Your task to perform on an android device: What's the weather? Image 0: 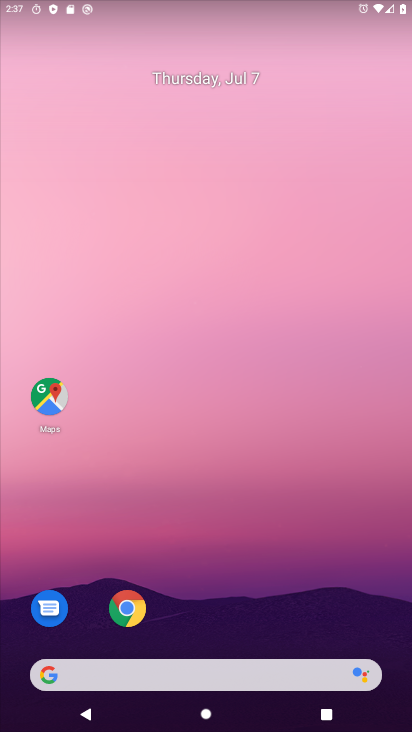
Step 0: drag from (272, 692) to (228, 171)
Your task to perform on an android device: What's the weather? Image 1: 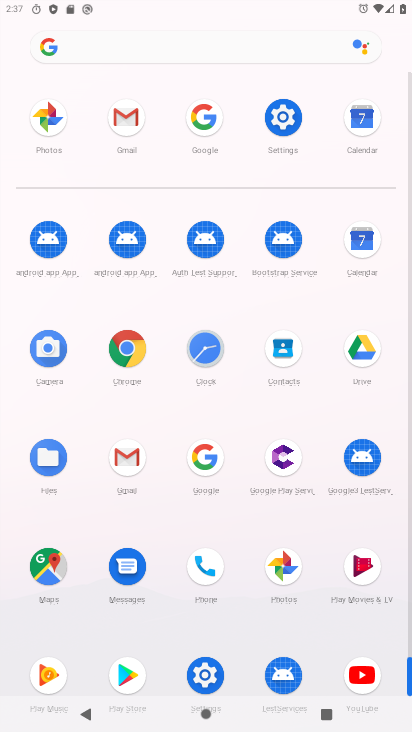
Step 1: click (204, 118)
Your task to perform on an android device: What's the weather? Image 2: 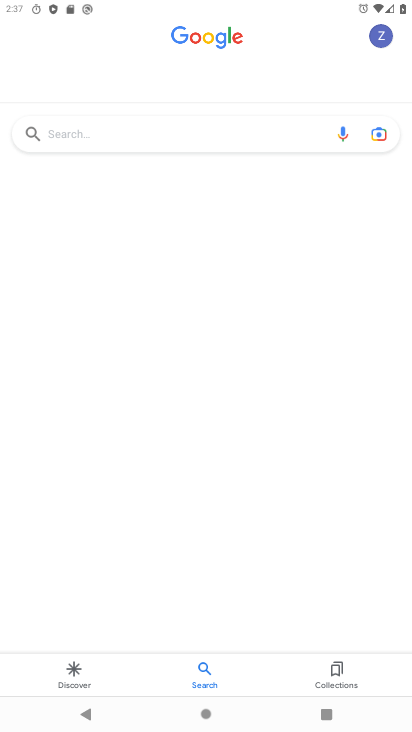
Step 2: click (197, 131)
Your task to perform on an android device: What's the weather? Image 3: 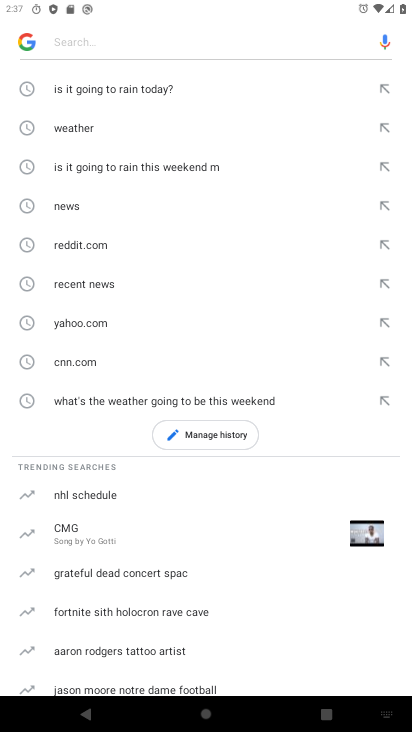
Step 3: click (75, 125)
Your task to perform on an android device: What's the weather? Image 4: 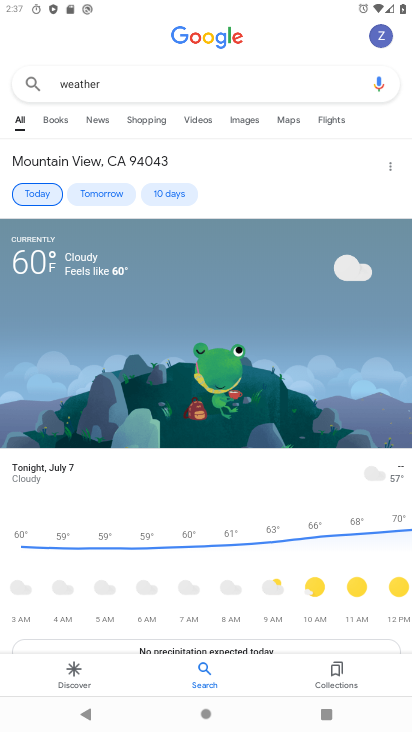
Step 4: click (37, 195)
Your task to perform on an android device: What's the weather? Image 5: 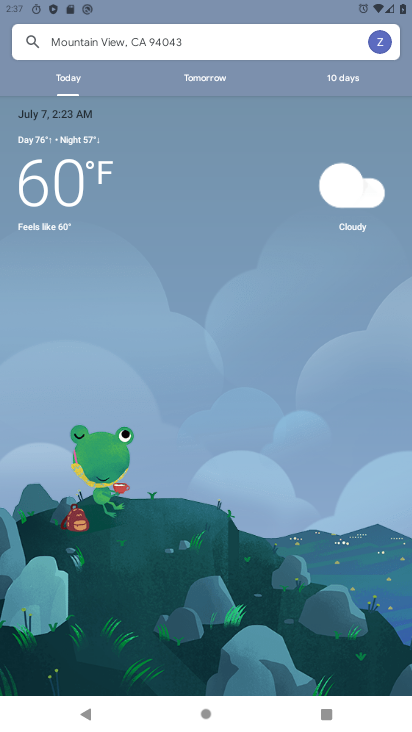
Step 5: task complete